Your task to perform on an android device: add a contact Image 0: 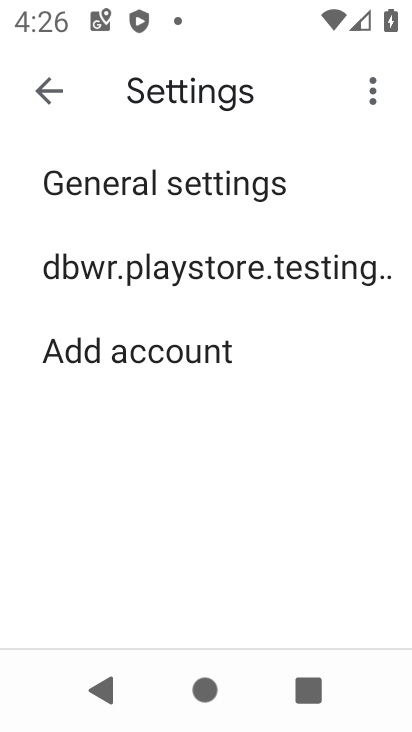
Step 0: press home button
Your task to perform on an android device: add a contact Image 1: 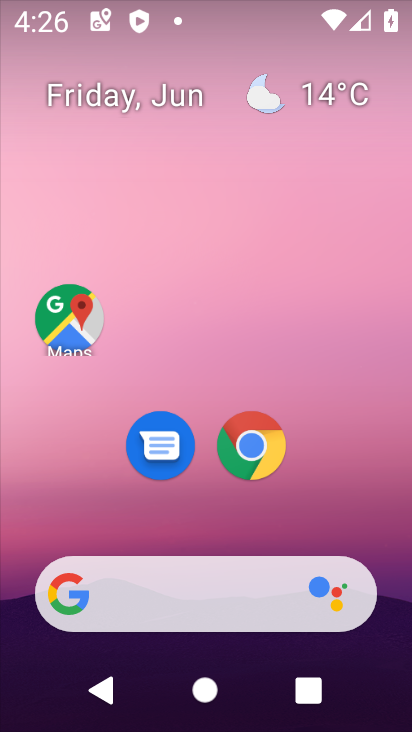
Step 1: drag from (343, 534) to (270, 165)
Your task to perform on an android device: add a contact Image 2: 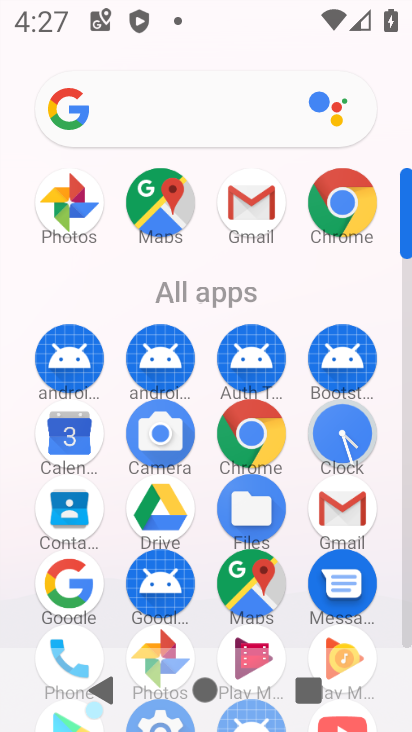
Step 2: click (62, 513)
Your task to perform on an android device: add a contact Image 3: 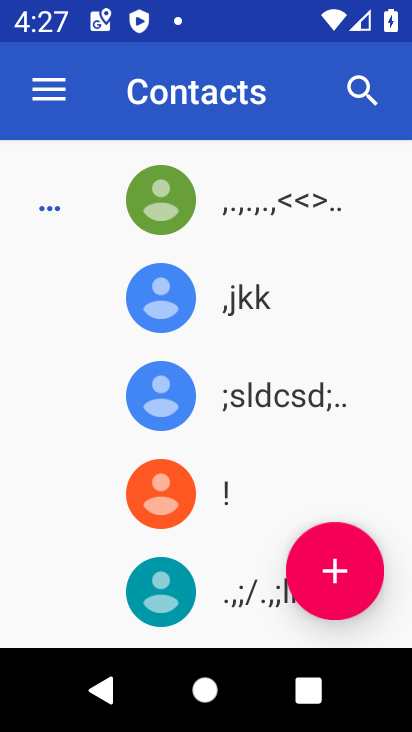
Step 3: click (355, 587)
Your task to perform on an android device: add a contact Image 4: 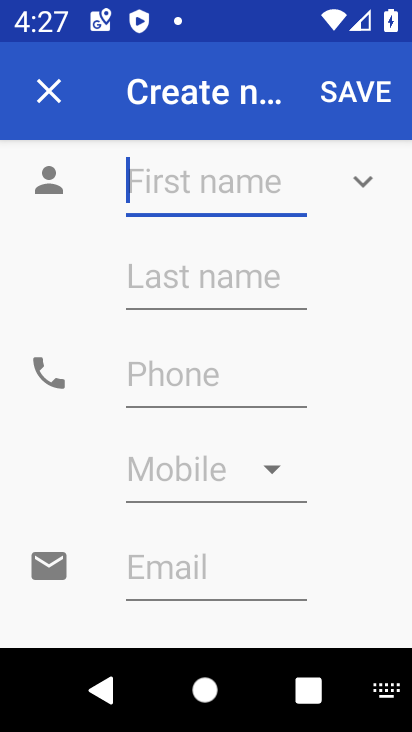
Step 4: type "jhvjhv"
Your task to perform on an android device: add a contact Image 5: 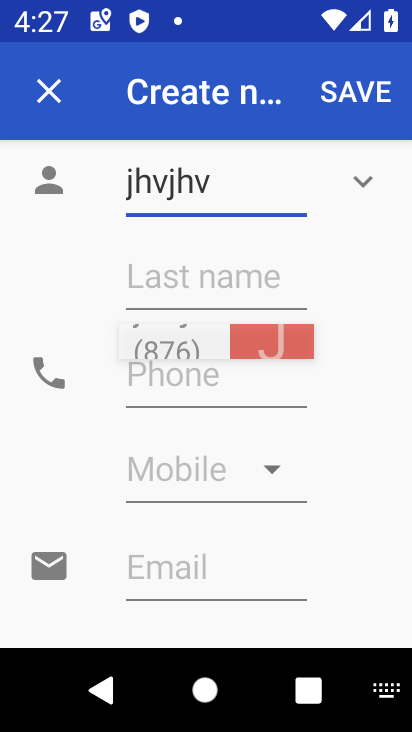
Step 5: click (231, 384)
Your task to perform on an android device: add a contact Image 6: 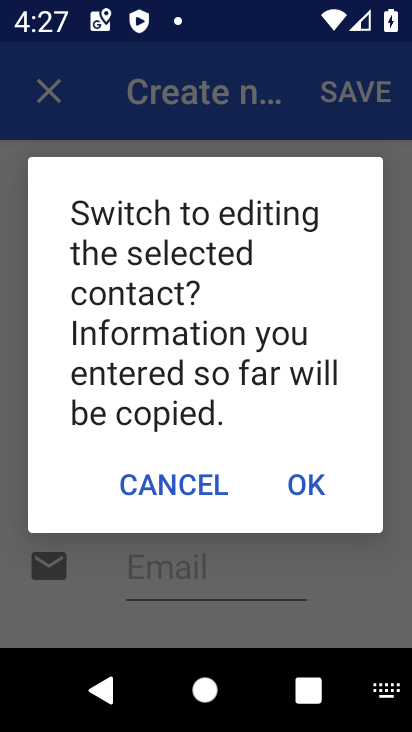
Step 6: click (202, 471)
Your task to perform on an android device: add a contact Image 7: 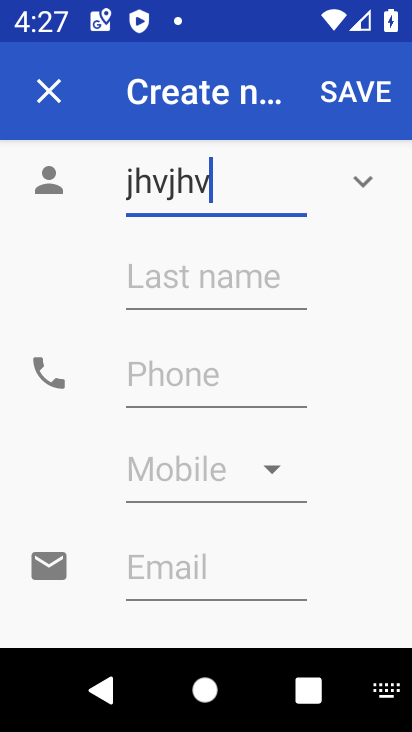
Step 7: click (196, 375)
Your task to perform on an android device: add a contact Image 8: 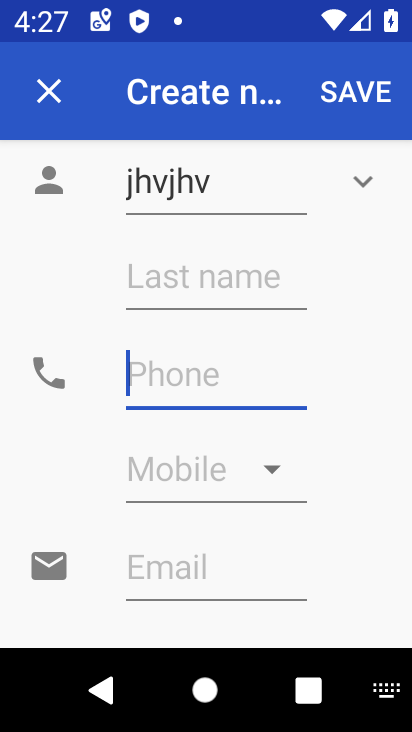
Step 8: type "6768768768"
Your task to perform on an android device: add a contact Image 9: 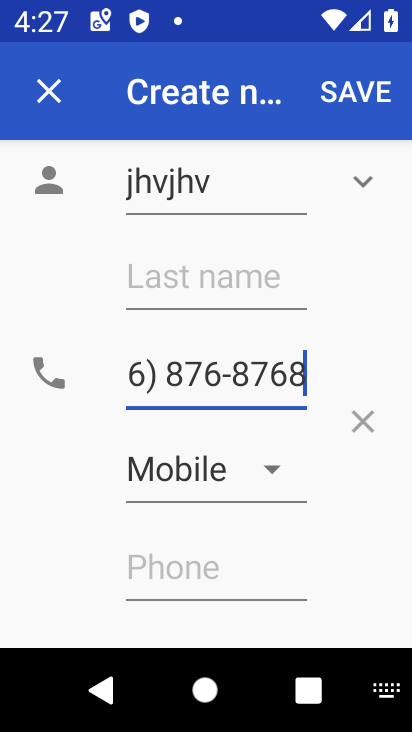
Step 9: click (349, 109)
Your task to perform on an android device: add a contact Image 10: 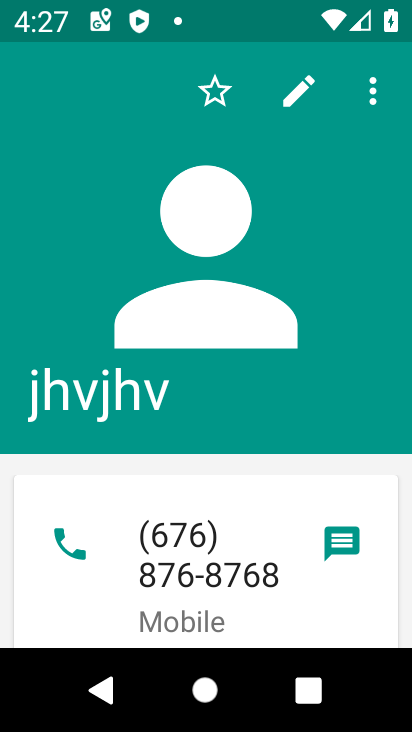
Step 10: task complete